Your task to perform on an android device: Go to settings Image 0: 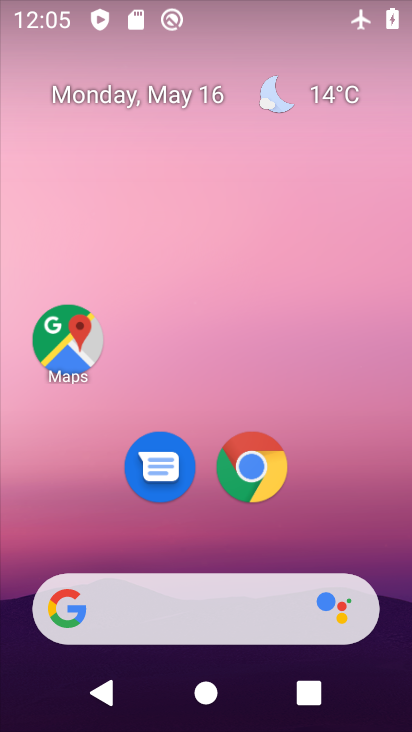
Step 0: drag from (303, 544) to (336, 187)
Your task to perform on an android device: Go to settings Image 1: 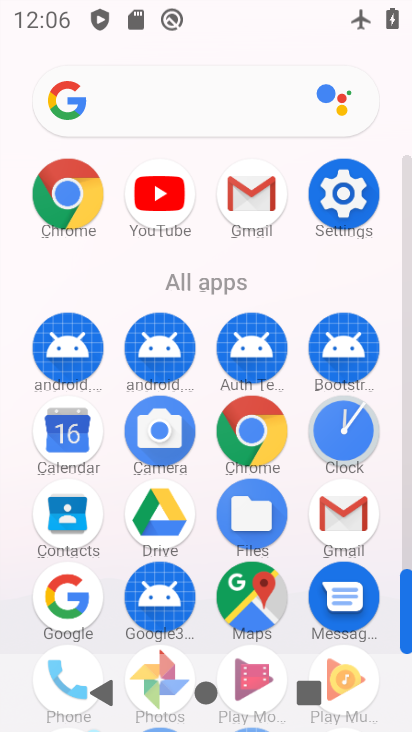
Step 1: click (362, 186)
Your task to perform on an android device: Go to settings Image 2: 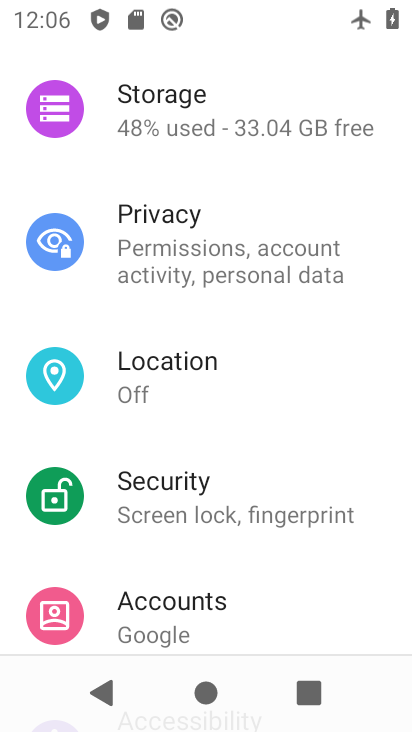
Step 2: task complete